Your task to perform on an android device: Go to Wikipedia Image 0: 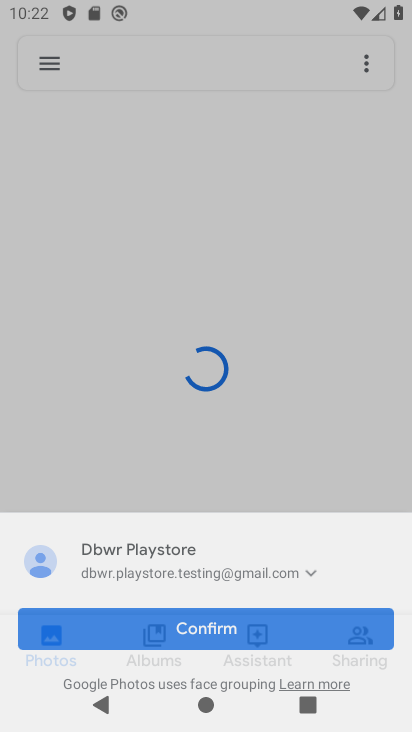
Step 0: press home button
Your task to perform on an android device: Go to Wikipedia Image 1: 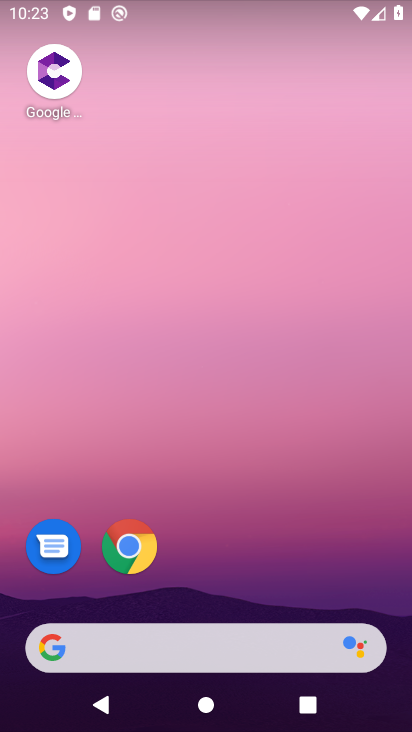
Step 1: click (129, 544)
Your task to perform on an android device: Go to Wikipedia Image 2: 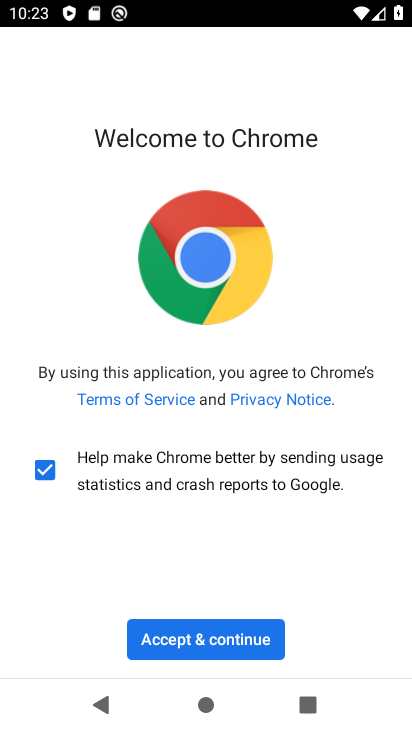
Step 2: click (258, 644)
Your task to perform on an android device: Go to Wikipedia Image 3: 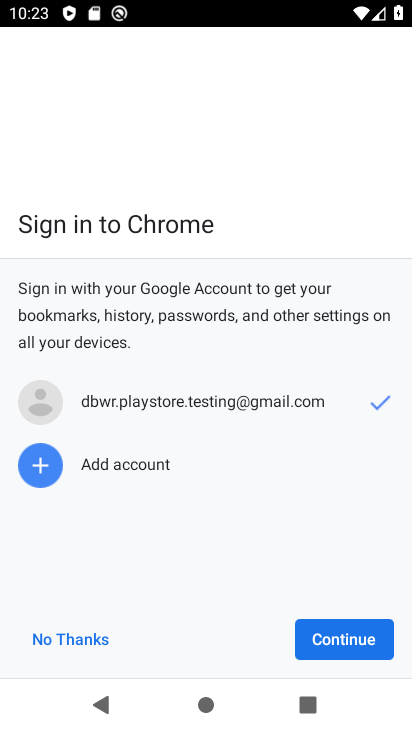
Step 3: click (382, 641)
Your task to perform on an android device: Go to Wikipedia Image 4: 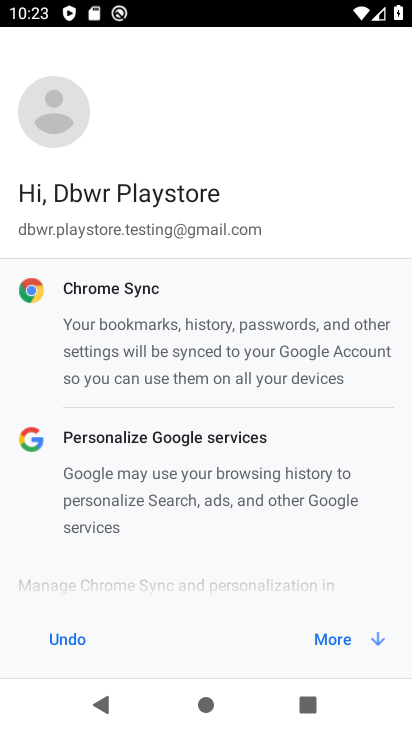
Step 4: click (382, 641)
Your task to perform on an android device: Go to Wikipedia Image 5: 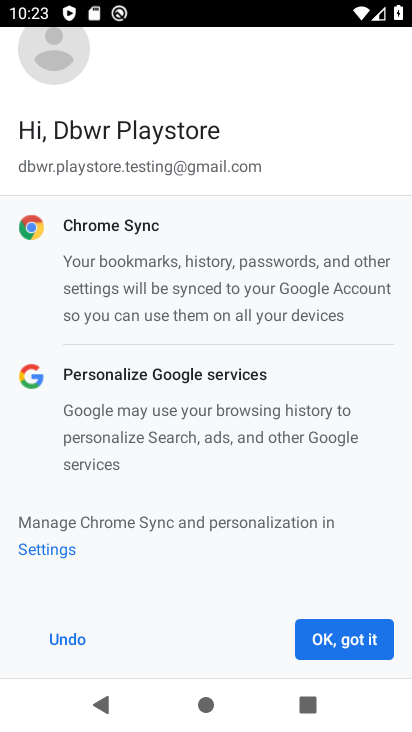
Step 5: click (382, 641)
Your task to perform on an android device: Go to Wikipedia Image 6: 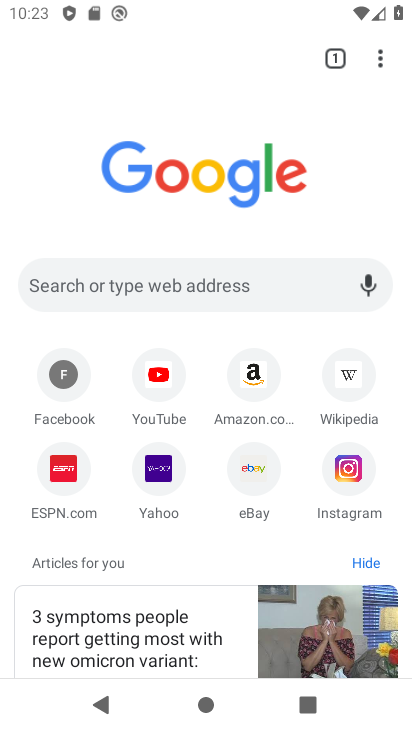
Step 6: click (340, 380)
Your task to perform on an android device: Go to Wikipedia Image 7: 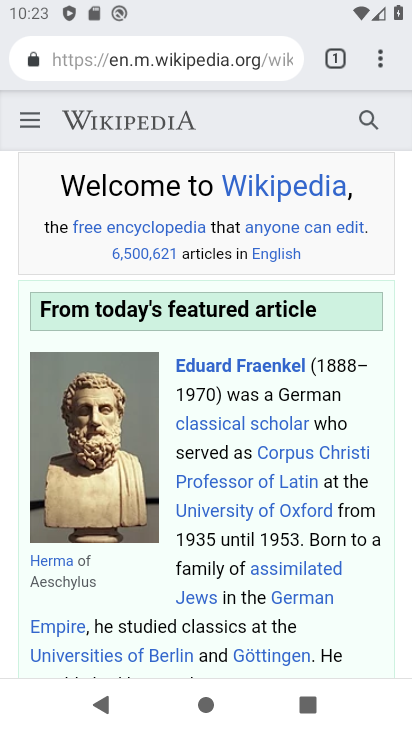
Step 7: task complete